Your task to perform on an android device: open app "Venmo" (install if not already installed) and enter user name: "bleedings@gmail.com" and password: "copied" Image 0: 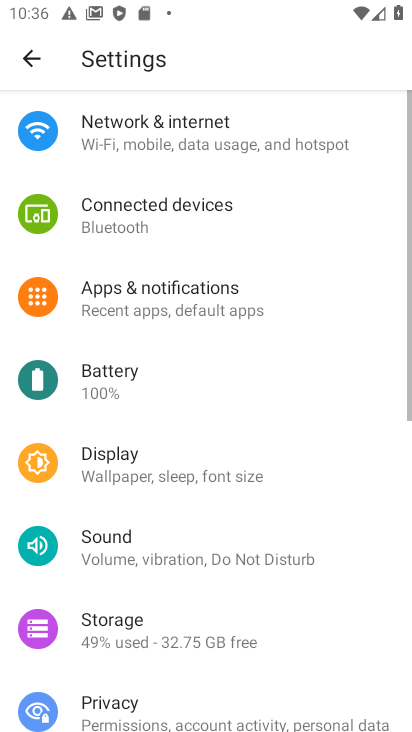
Step 0: press home button
Your task to perform on an android device: open app "Venmo" (install if not already installed) and enter user name: "bleedings@gmail.com" and password: "copied" Image 1: 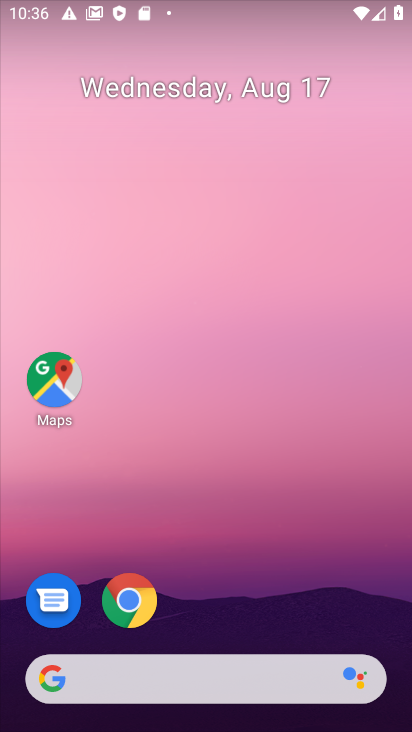
Step 1: drag from (214, 629) to (229, 22)
Your task to perform on an android device: open app "Venmo" (install if not already installed) and enter user name: "bleedings@gmail.com" and password: "copied" Image 2: 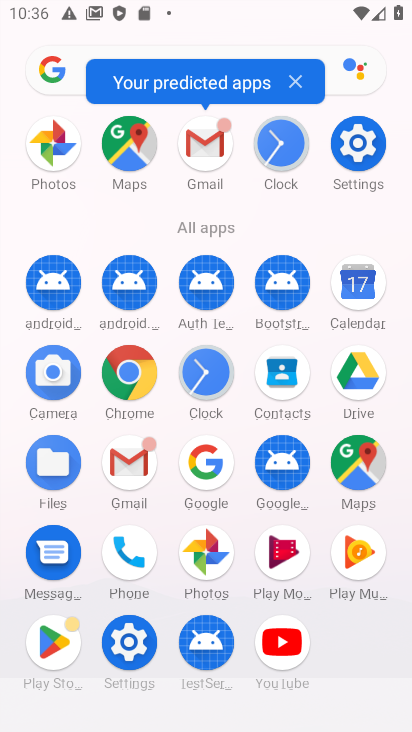
Step 2: click (47, 637)
Your task to perform on an android device: open app "Venmo" (install if not already installed) and enter user name: "bleedings@gmail.com" and password: "copied" Image 3: 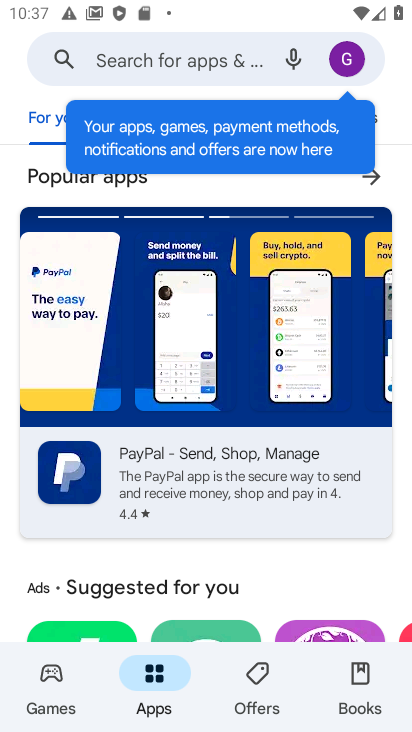
Step 3: click (136, 54)
Your task to perform on an android device: open app "Venmo" (install if not already installed) and enter user name: "bleedings@gmail.com" and password: "copied" Image 4: 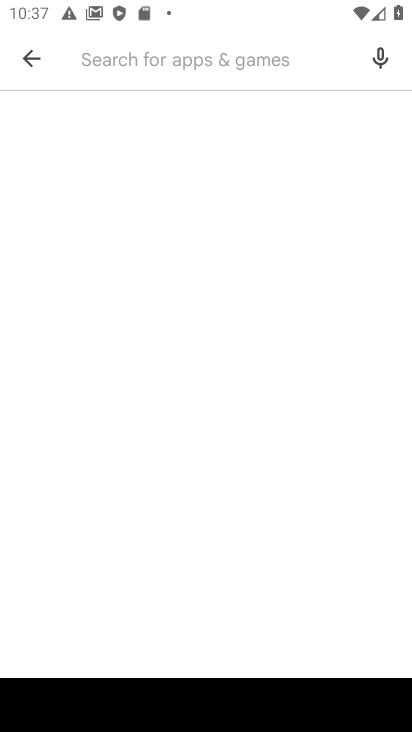
Step 4: type "Venmo"
Your task to perform on an android device: open app "Venmo" (install if not already installed) and enter user name: "bleedings@gmail.com" and password: "copied" Image 5: 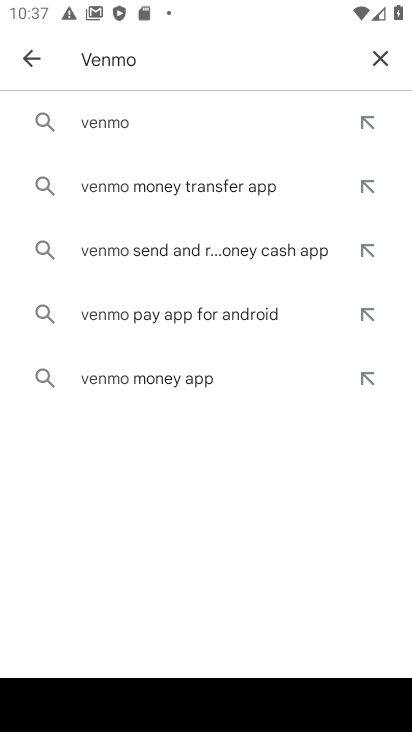
Step 5: click (143, 116)
Your task to perform on an android device: open app "Venmo" (install if not already installed) and enter user name: "bleedings@gmail.com" and password: "copied" Image 6: 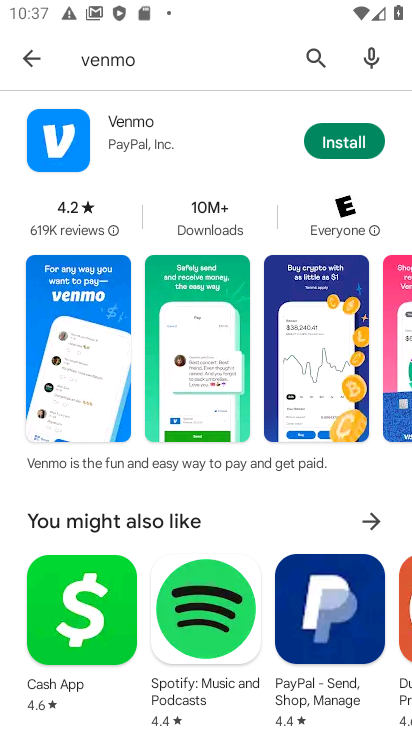
Step 6: click (340, 132)
Your task to perform on an android device: open app "Venmo" (install if not already installed) and enter user name: "bleedings@gmail.com" and password: "copied" Image 7: 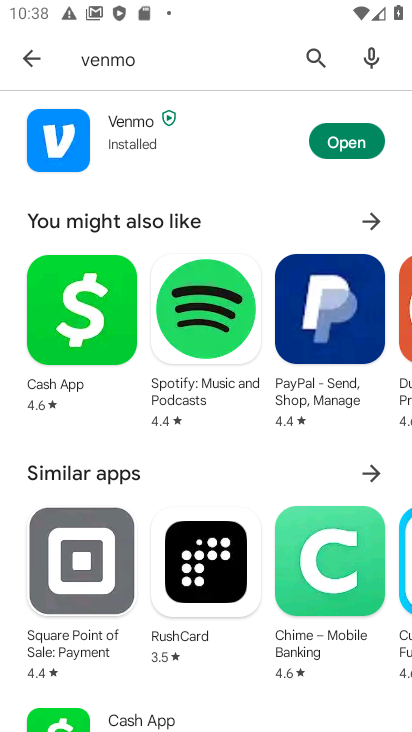
Step 7: click (339, 152)
Your task to perform on an android device: open app "Venmo" (install if not already installed) and enter user name: "bleedings@gmail.com" and password: "copied" Image 8: 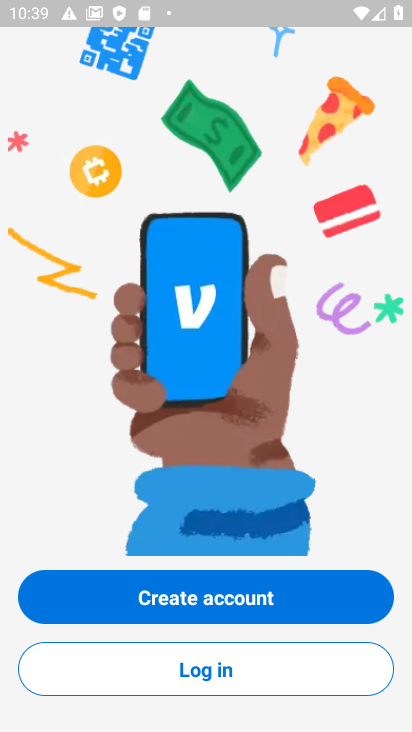
Step 8: click (219, 671)
Your task to perform on an android device: open app "Venmo" (install if not already installed) and enter user name: "bleedings@gmail.com" and password: "copied" Image 9: 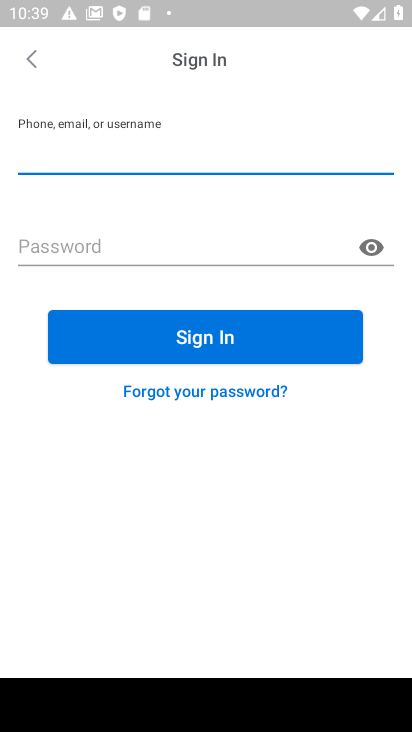
Step 9: click (83, 148)
Your task to perform on an android device: open app "Venmo" (install if not already installed) and enter user name: "bleedings@gmail.com" and password: "copied" Image 10: 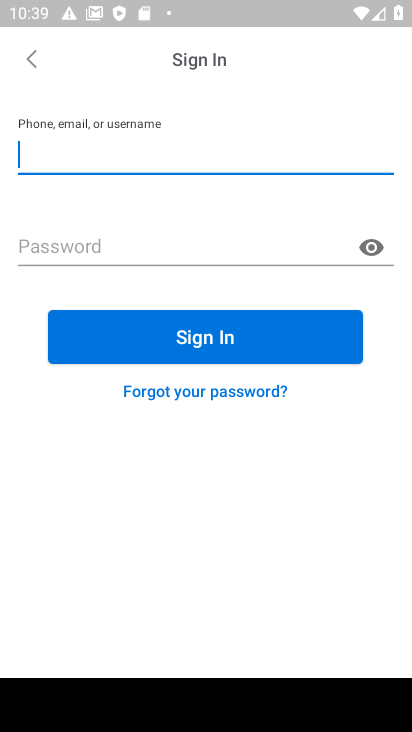
Step 10: type "bleedings@gmail.com"
Your task to perform on an android device: open app "Venmo" (install if not already installed) and enter user name: "bleedings@gmail.com" and password: "copied" Image 11: 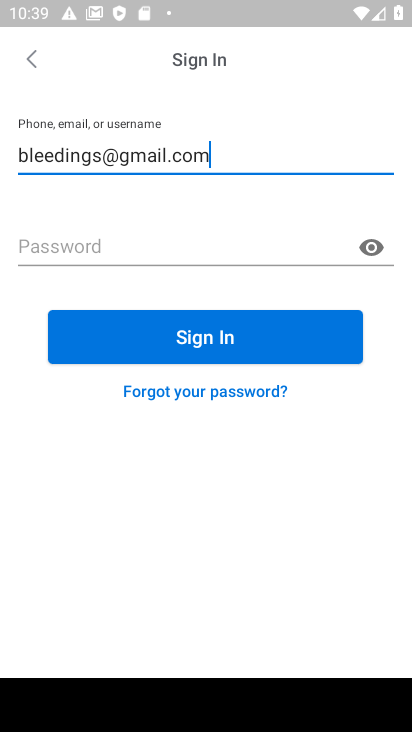
Step 11: type ""
Your task to perform on an android device: open app "Venmo" (install if not already installed) and enter user name: "bleedings@gmail.com" and password: "copied" Image 12: 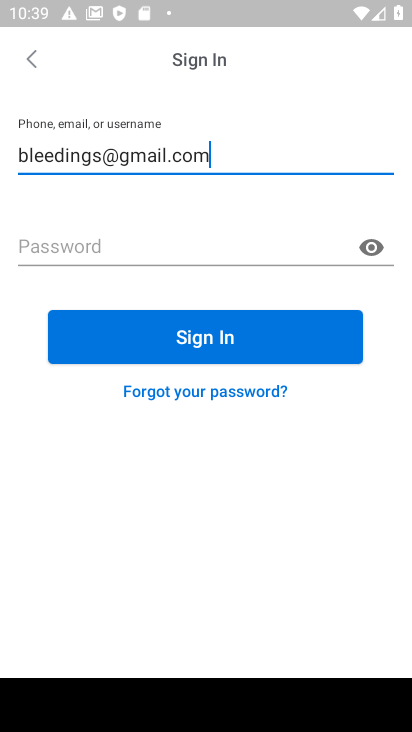
Step 12: click (60, 242)
Your task to perform on an android device: open app "Venmo" (install if not already installed) and enter user name: "bleedings@gmail.com" and password: "copied" Image 13: 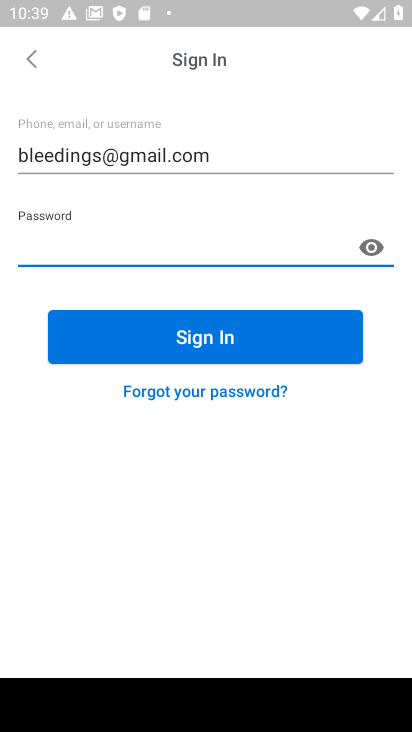
Step 13: type "copied"
Your task to perform on an android device: open app "Venmo" (install if not already installed) and enter user name: "bleedings@gmail.com" and password: "copied" Image 14: 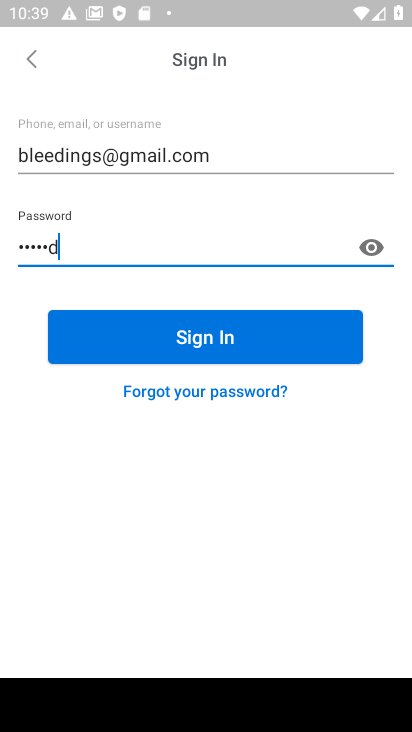
Step 14: type ""
Your task to perform on an android device: open app "Venmo" (install if not already installed) and enter user name: "bleedings@gmail.com" and password: "copied" Image 15: 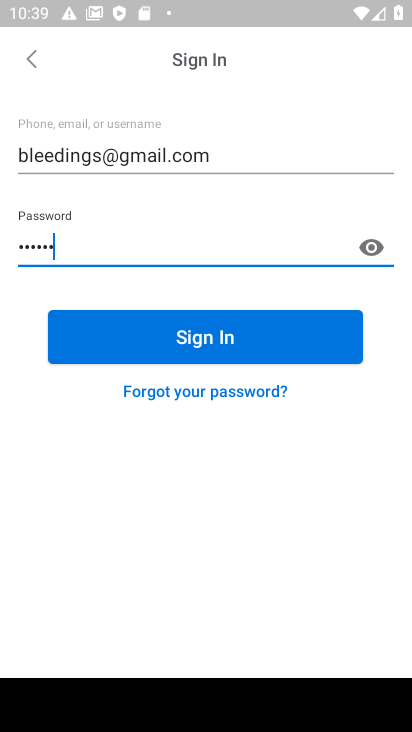
Step 15: click (372, 245)
Your task to perform on an android device: open app "Venmo" (install if not already installed) and enter user name: "bleedings@gmail.com" and password: "copied" Image 16: 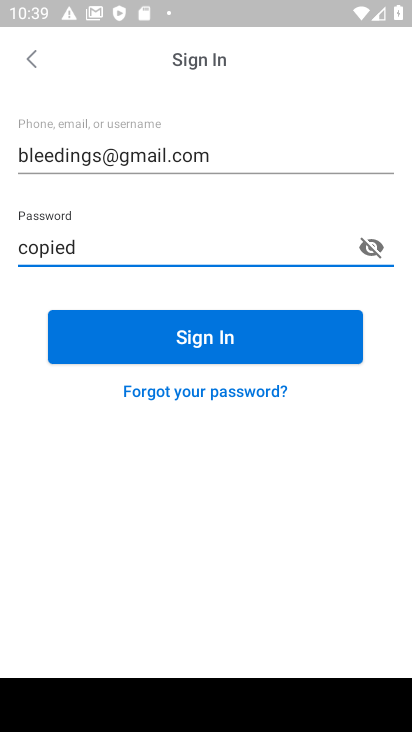
Step 16: click (204, 335)
Your task to perform on an android device: open app "Venmo" (install if not already installed) and enter user name: "bleedings@gmail.com" and password: "copied" Image 17: 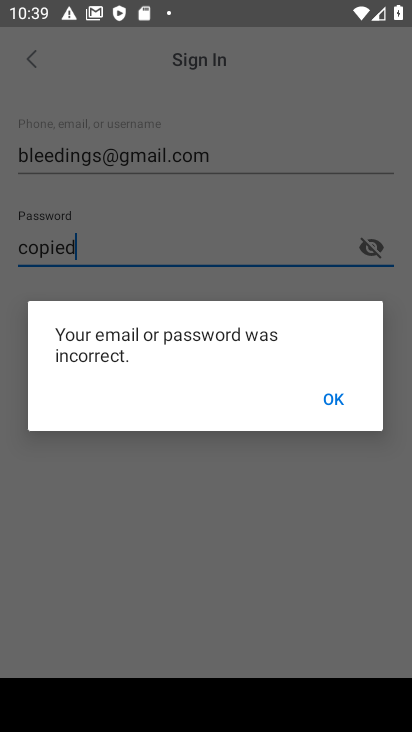
Step 17: task complete